Your task to perform on an android device: change the clock display to show seconds Image 0: 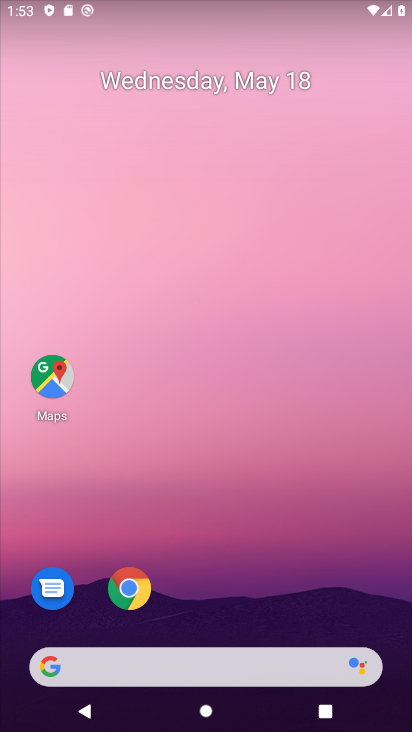
Step 0: drag from (92, 498) to (255, 175)
Your task to perform on an android device: change the clock display to show seconds Image 1: 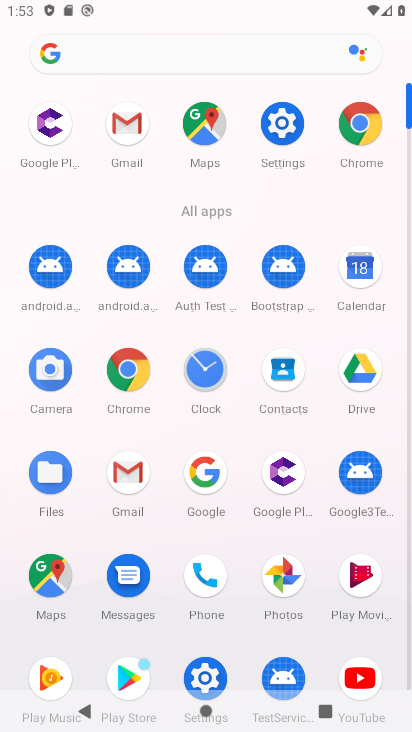
Step 1: click (189, 371)
Your task to perform on an android device: change the clock display to show seconds Image 2: 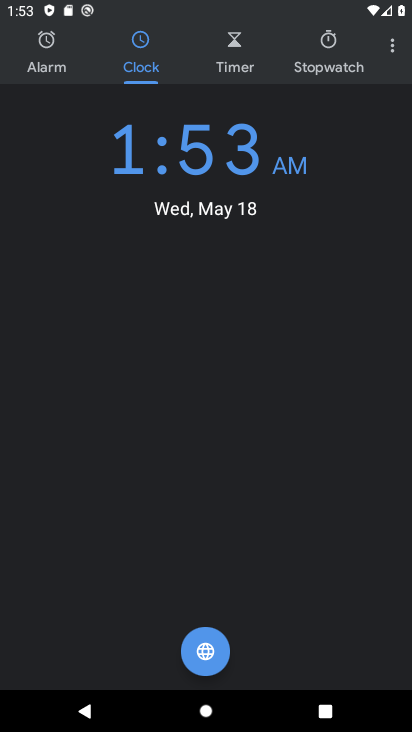
Step 2: click (392, 54)
Your task to perform on an android device: change the clock display to show seconds Image 3: 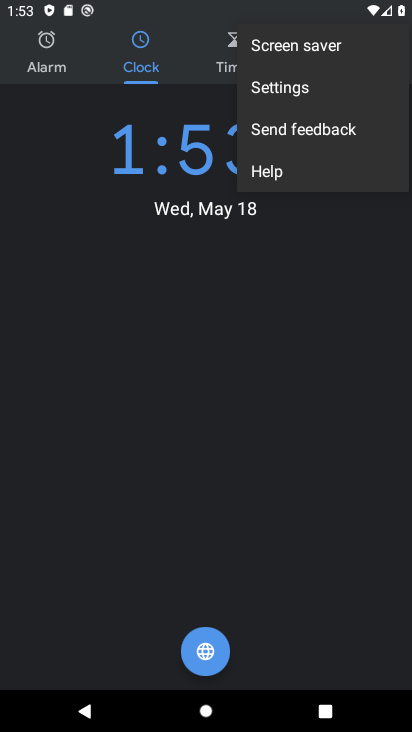
Step 3: click (346, 88)
Your task to perform on an android device: change the clock display to show seconds Image 4: 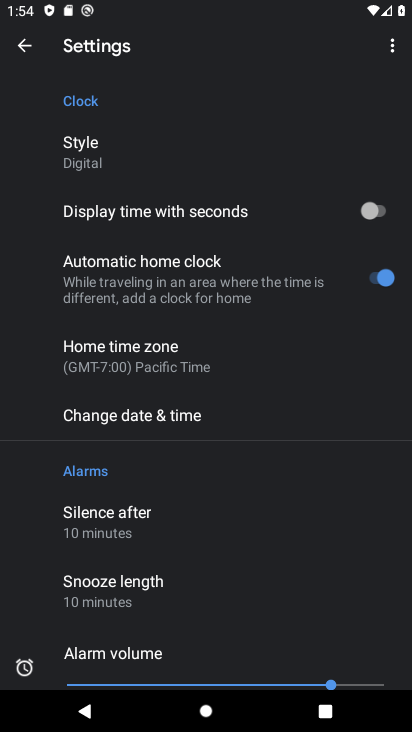
Step 4: drag from (12, 488) to (192, 123)
Your task to perform on an android device: change the clock display to show seconds Image 5: 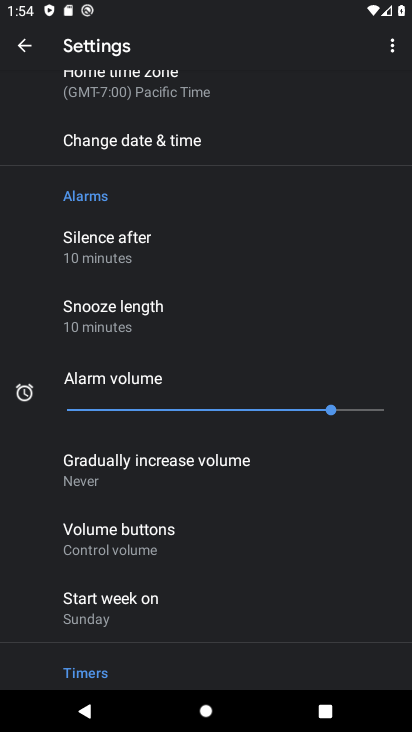
Step 5: drag from (31, 553) to (219, 127)
Your task to perform on an android device: change the clock display to show seconds Image 6: 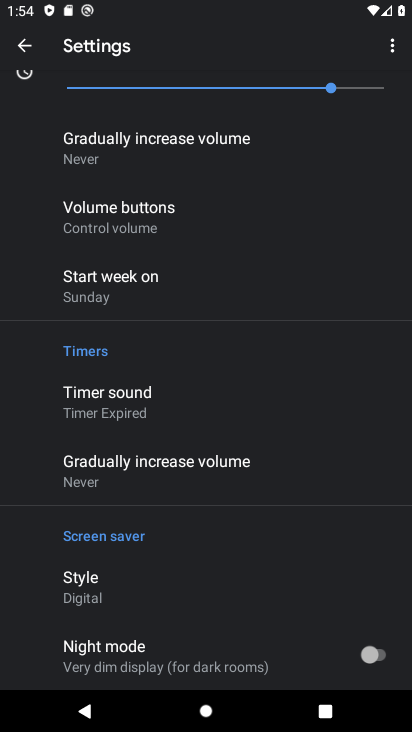
Step 6: drag from (36, 423) to (204, 180)
Your task to perform on an android device: change the clock display to show seconds Image 7: 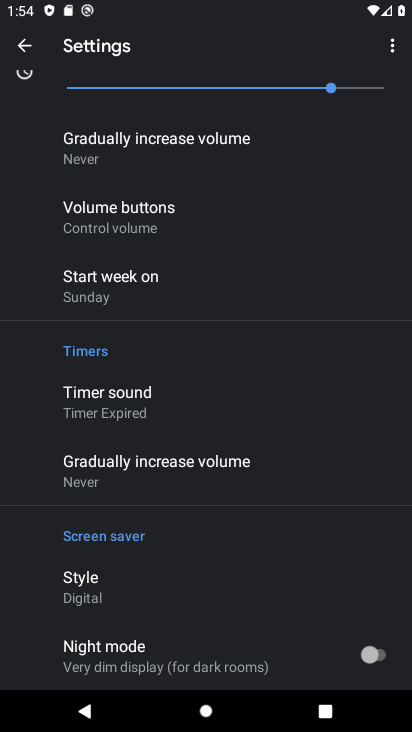
Step 7: drag from (219, 190) to (135, 669)
Your task to perform on an android device: change the clock display to show seconds Image 8: 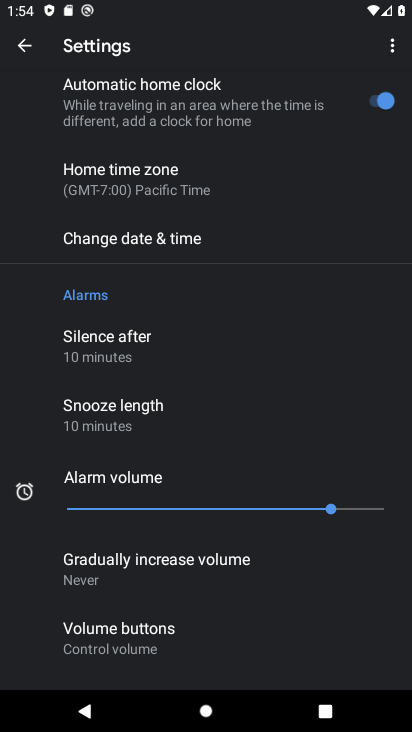
Step 8: drag from (244, 210) to (190, 585)
Your task to perform on an android device: change the clock display to show seconds Image 9: 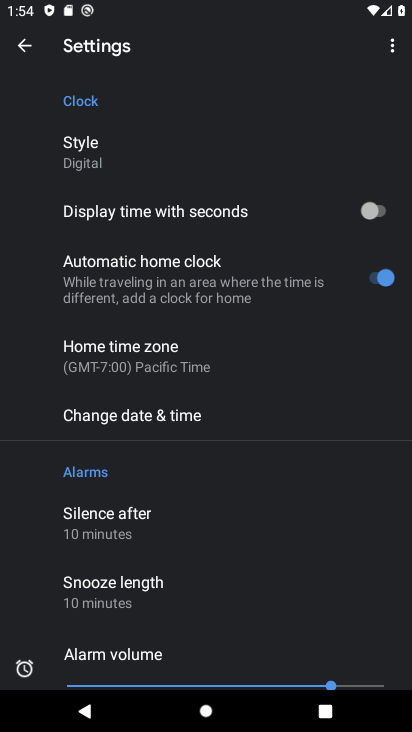
Step 9: click (363, 216)
Your task to perform on an android device: change the clock display to show seconds Image 10: 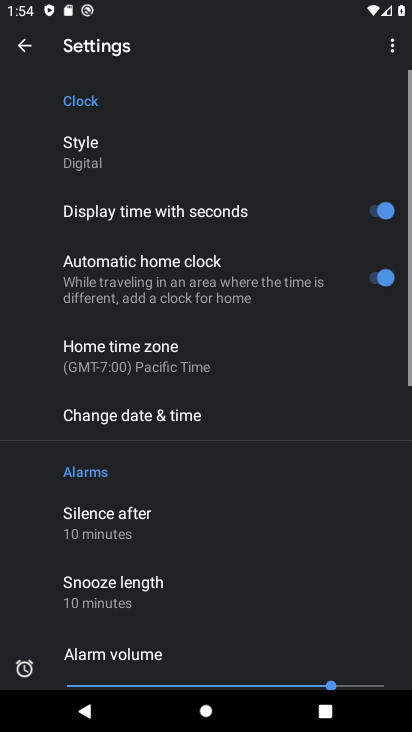
Step 10: task complete